Your task to perform on an android device: turn off priority inbox in the gmail app Image 0: 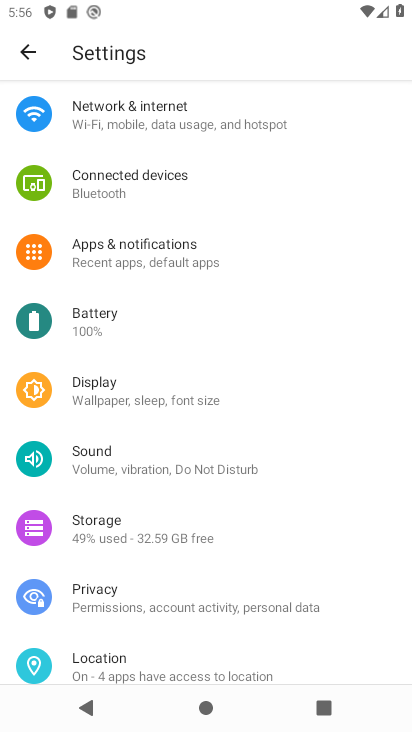
Step 0: press home button
Your task to perform on an android device: turn off priority inbox in the gmail app Image 1: 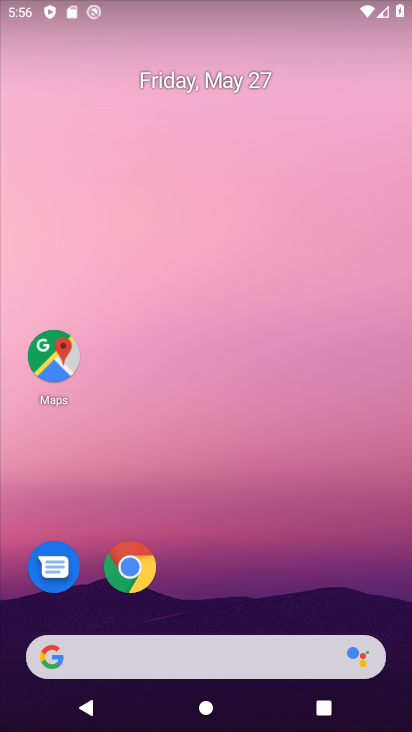
Step 1: drag from (211, 577) to (226, 125)
Your task to perform on an android device: turn off priority inbox in the gmail app Image 2: 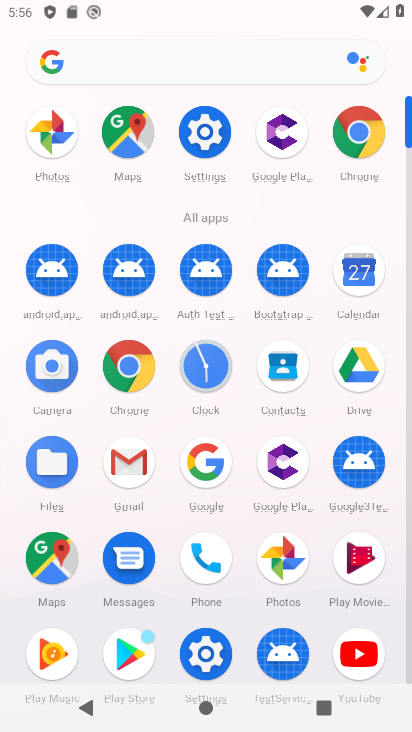
Step 2: click (132, 474)
Your task to perform on an android device: turn off priority inbox in the gmail app Image 3: 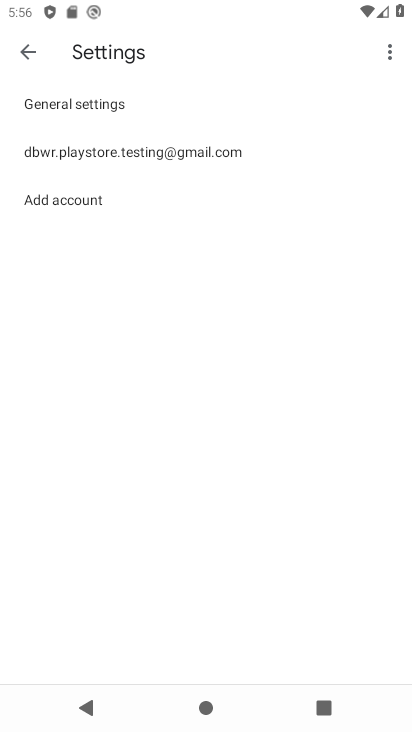
Step 3: click (143, 158)
Your task to perform on an android device: turn off priority inbox in the gmail app Image 4: 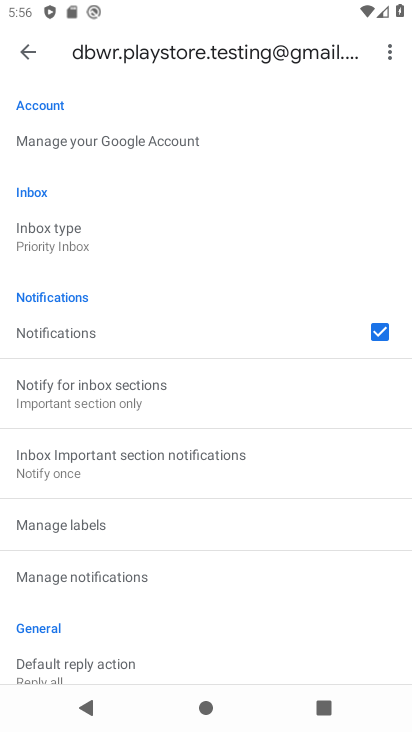
Step 4: click (59, 241)
Your task to perform on an android device: turn off priority inbox in the gmail app Image 5: 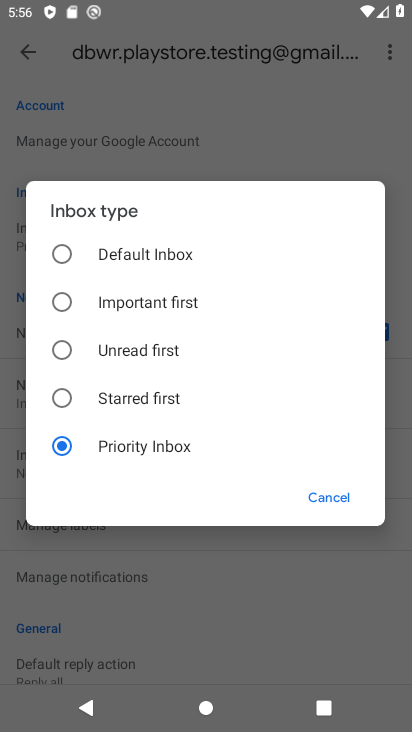
Step 5: click (61, 256)
Your task to perform on an android device: turn off priority inbox in the gmail app Image 6: 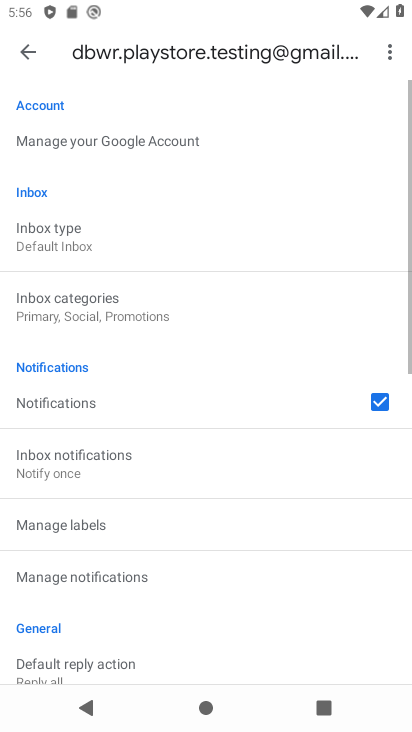
Step 6: task complete